Your task to perform on an android device: open a bookmark in the chrome app Image 0: 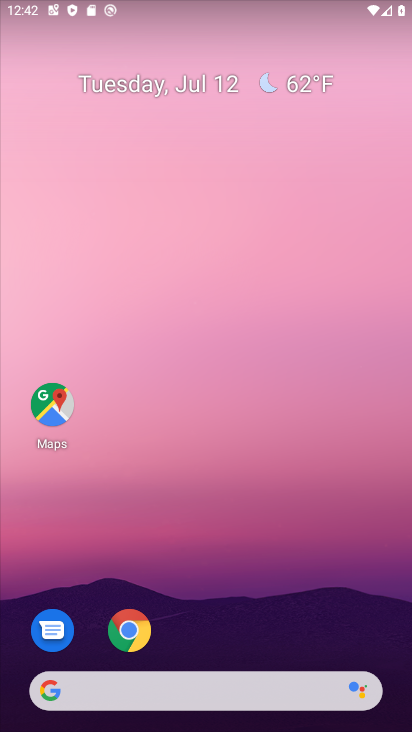
Step 0: click (124, 633)
Your task to perform on an android device: open a bookmark in the chrome app Image 1: 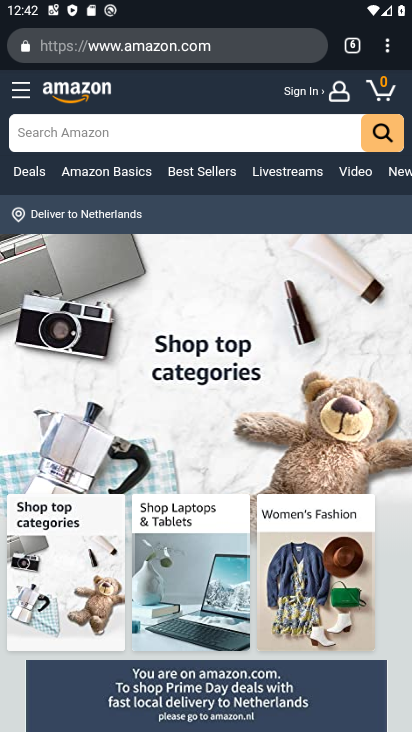
Step 1: click (391, 48)
Your task to perform on an android device: open a bookmark in the chrome app Image 2: 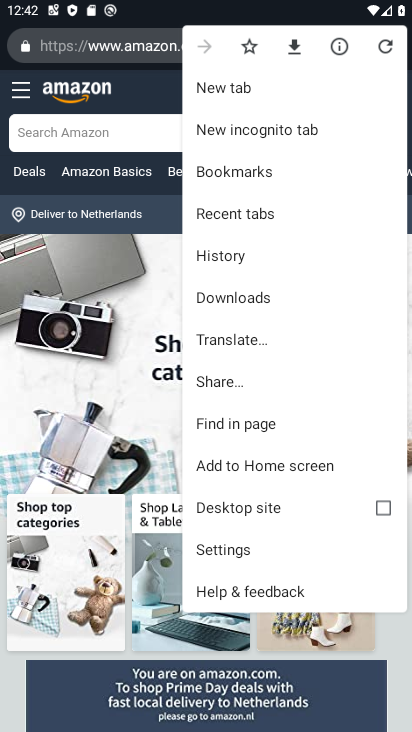
Step 2: click (235, 174)
Your task to perform on an android device: open a bookmark in the chrome app Image 3: 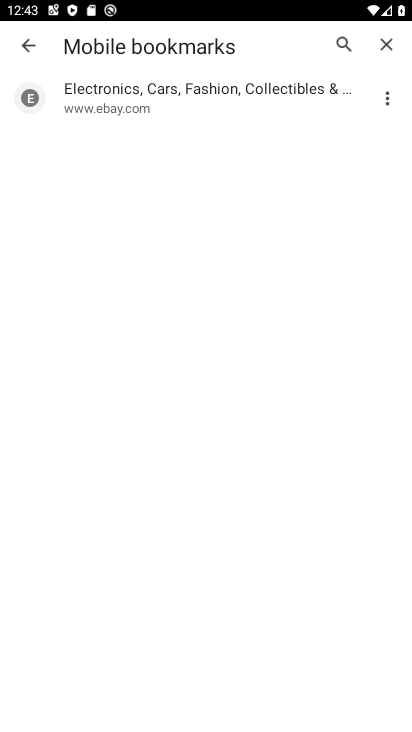
Step 3: task complete